Your task to perform on an android device: check data usage Image 0: 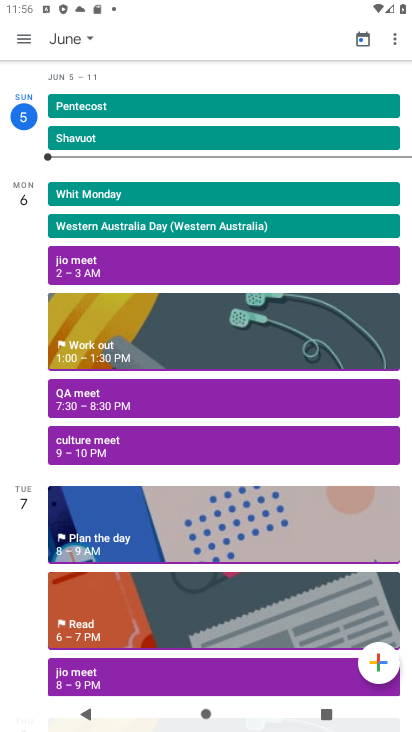
Step 0: task complete